Your task to perform on an android device: open device folders in google photos Image 0: 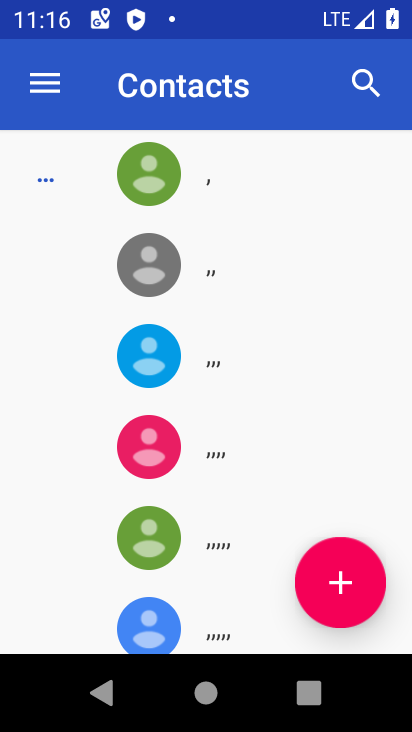
Step 0: press home button
Your task to perform on an android device: open device folders in google photos Image 1: 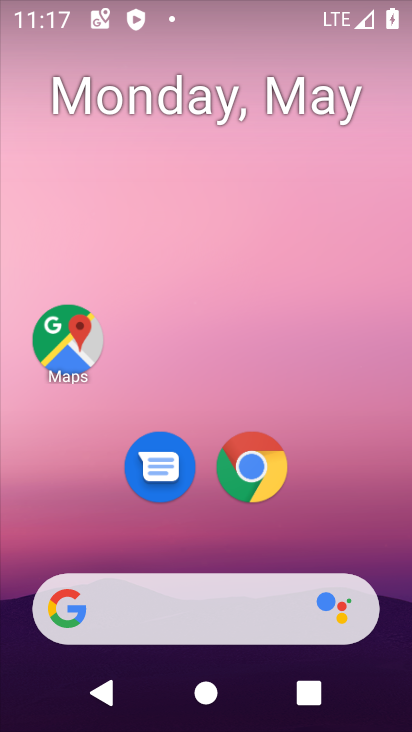
Step 1: drag from (386, 665) to (331, 21)
Your task to perform on an android device: open device folders in google photos Image 2: 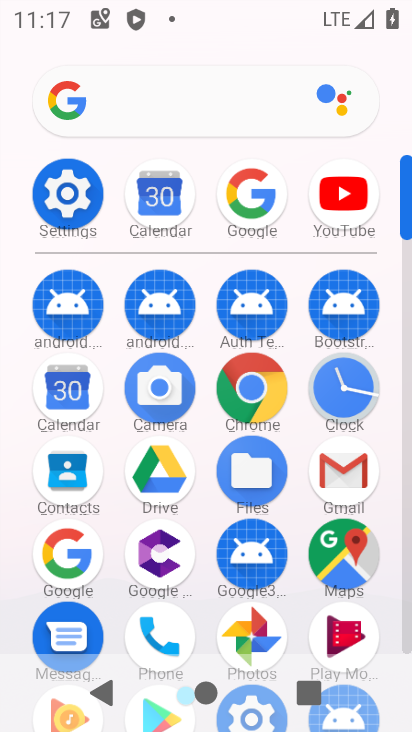
Step 2: click (253, 622)
Your task to perform on an android device: open device folders in google photos Image 3: 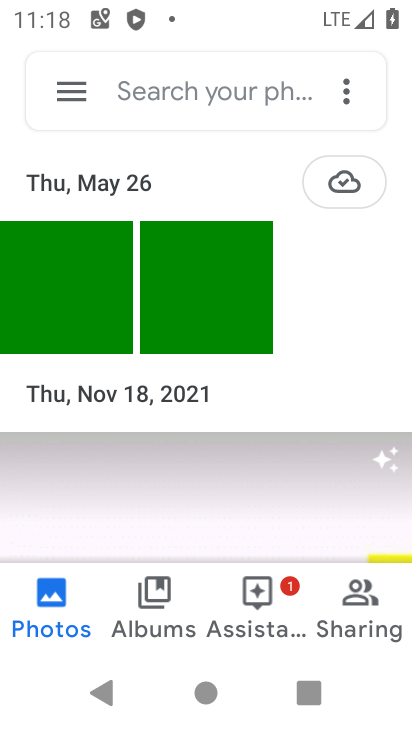
Step 3: press back button
Your task to perform on an android device: open device folders in google photos Image 4: 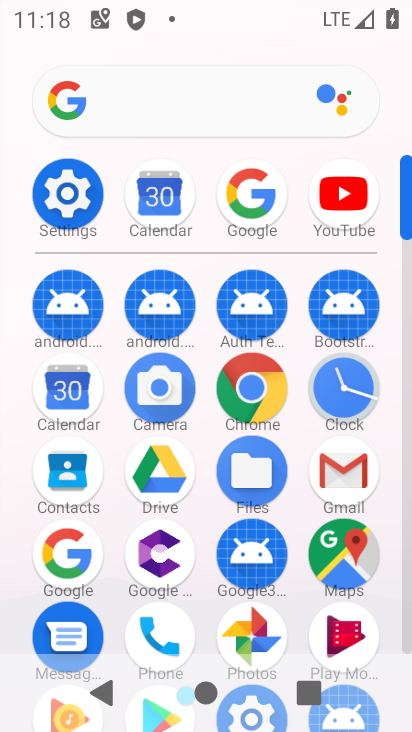
Step 4: drag from (198, 598) to (195, 275)
Your task to perform on an android device: open device folders in google photos Image 5: 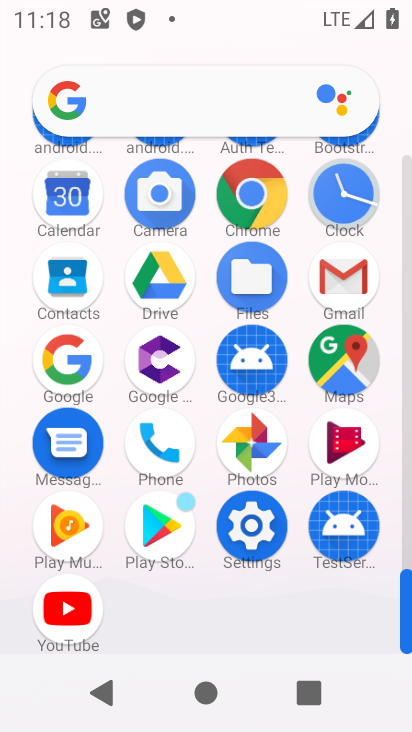
Step 5: click (257, 425)
Your task to perform on an android device: open device folders in google photos Image 6: 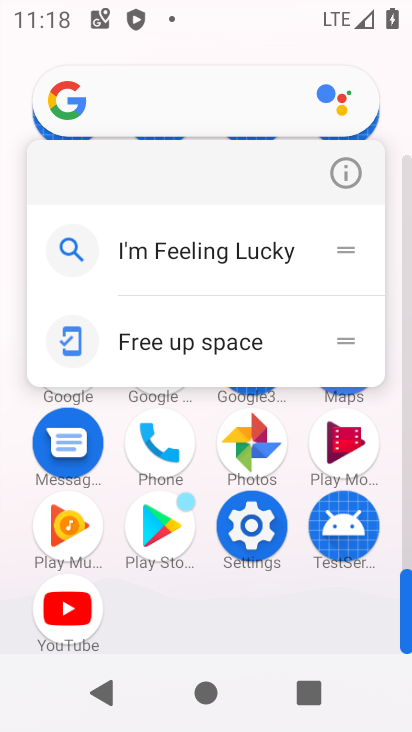
Step 6: click (255, 430)
Your task to perform on an android device: open device folders in google photos Image 7: 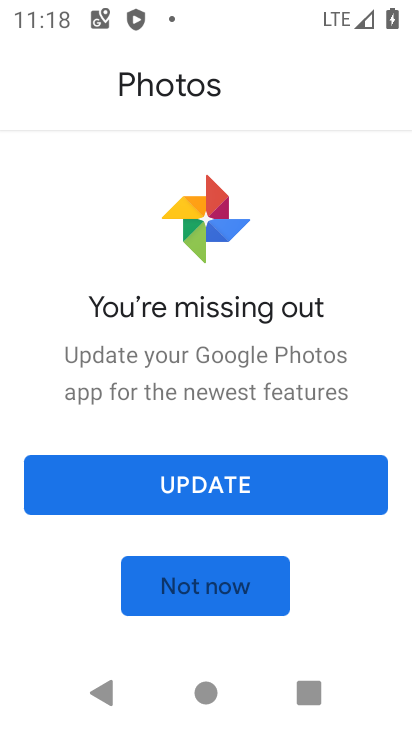
Step 7: click (62, 90)
Your task to perform on an android device: open device folders in google photos Image 8: 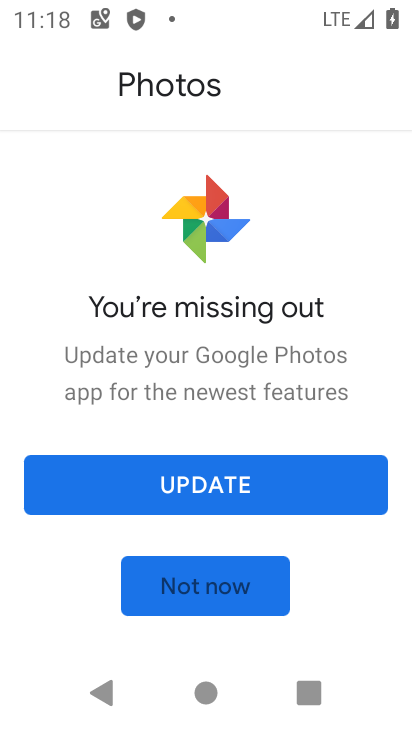
Step 8: click (177, 486)
Your task to perform on an android device: open device folders in google photos Image 9: 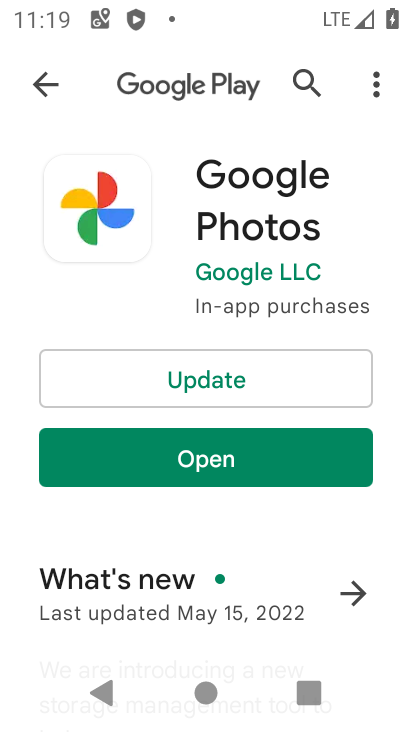
Step 9: click (239, 388)
Your task to perform on an android device: open device folders in google photos Image 10: 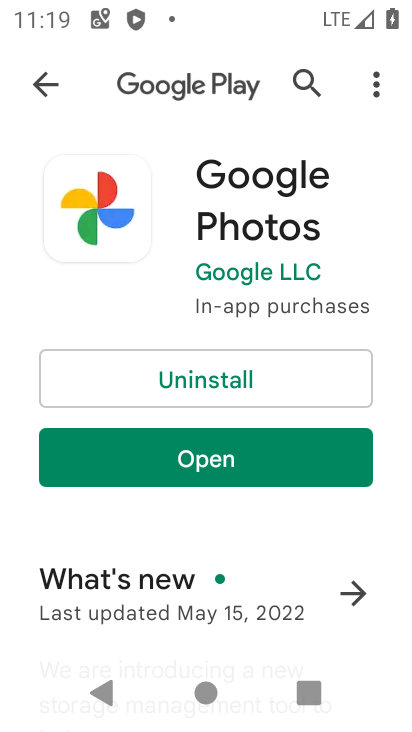
Step 10: click (243, 462)
Your task to perform on an android device: open device folders in google photos Image 11: 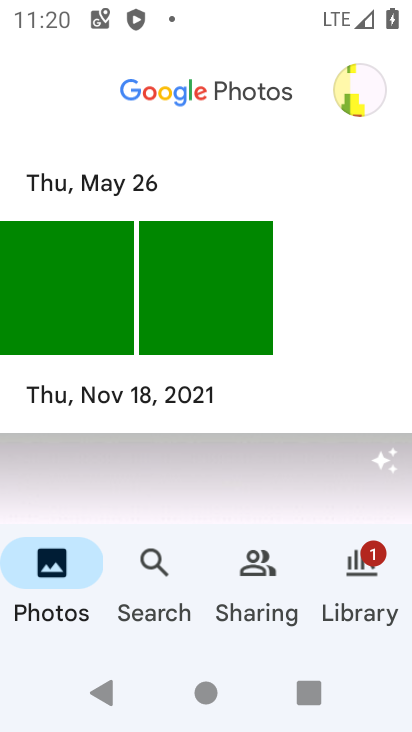
Step 11: task complete